Your task to perform on an android device: refresh tabs in the chrome app Image 0: 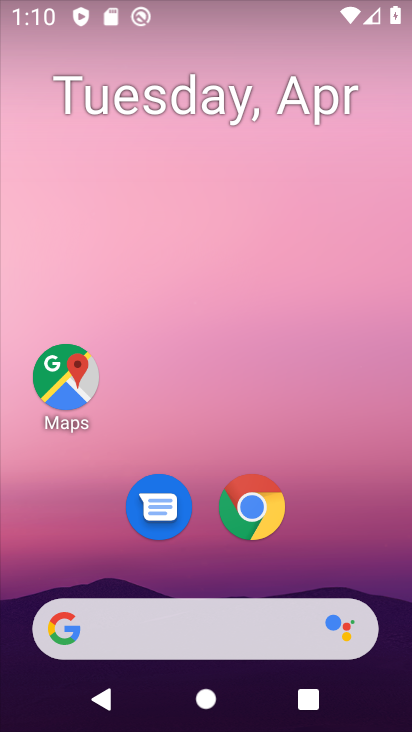
Step 0: click (264, 531)
Your task to perform on an android device: refresh tabs in the chrome app Image 1: 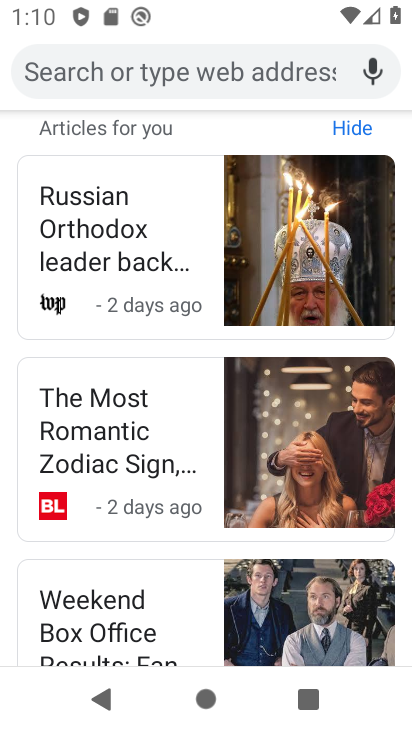
Step 1: drag from (312, 299) to (255, 720)
Your task to perform on an android device: refresh tabs in the chrome app Image 2: 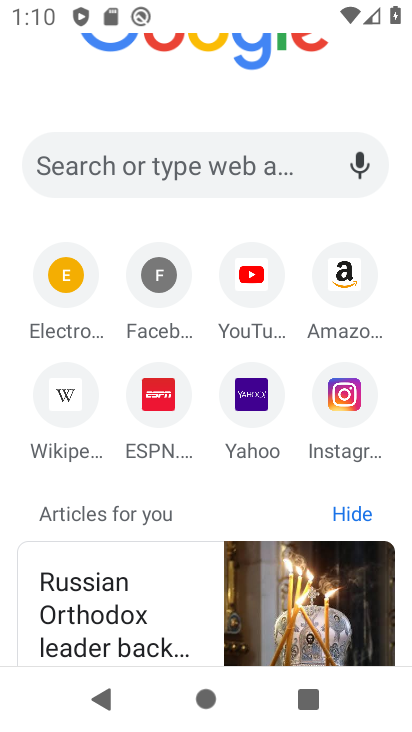
Step 2: drag from (271, 200) to (245, 458)
Your task to perform on an android device: refresh tabs in the chrome app Image 3: 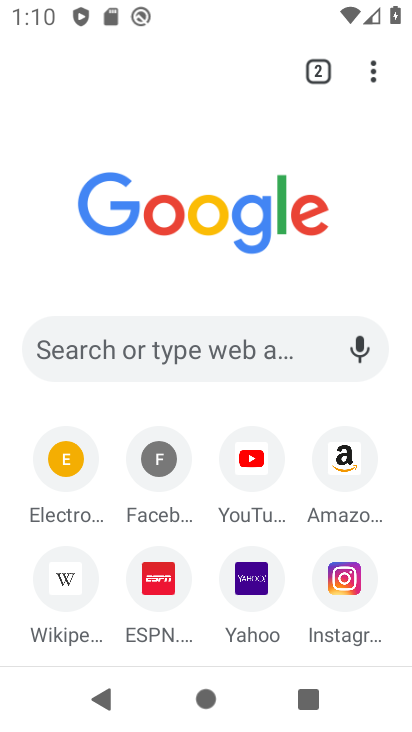
Step 3: click (378, 76)
Your task to perform on an android device: refresh tabs in the chrome app Image 4: 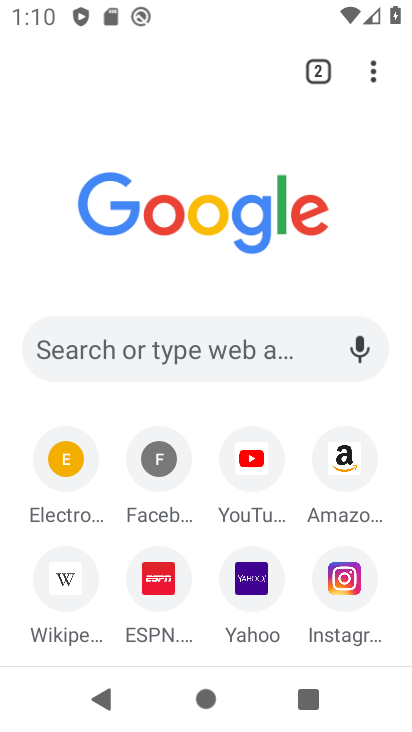
Step 4: click (366, 77)
Your task to perform on an android device: refresh tabs in the chrome app Image 5: 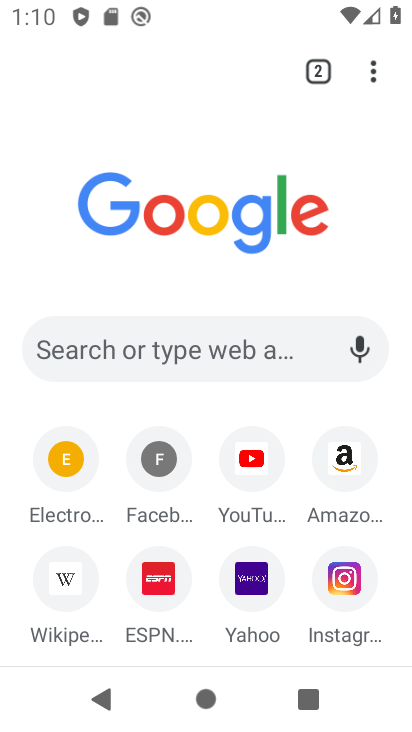
Step 5: task complete